Your task to perform on an android device: add a contact in the contacts app Image 0: 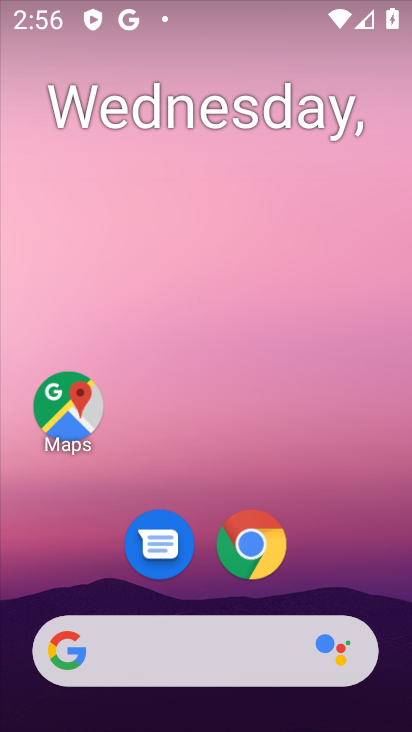
Step 0: drag from (98, 589) to (175, 161)
Your task to perform on an android device: add a contact in the contacts app Image 1: 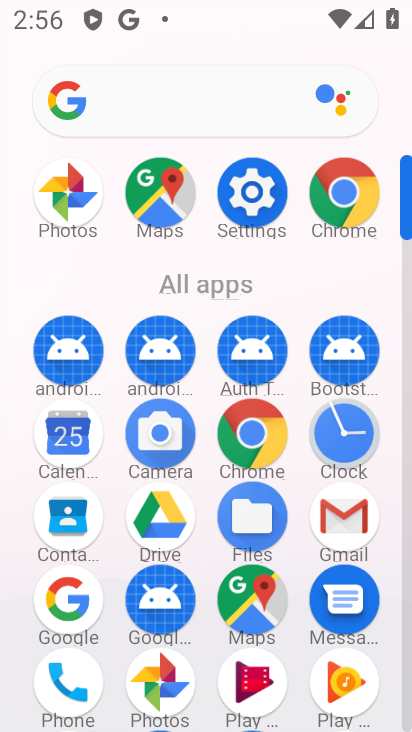
Step 1: click (60, 528)
Your task to perform on an android device: add a contact in the contacts app Image 2: 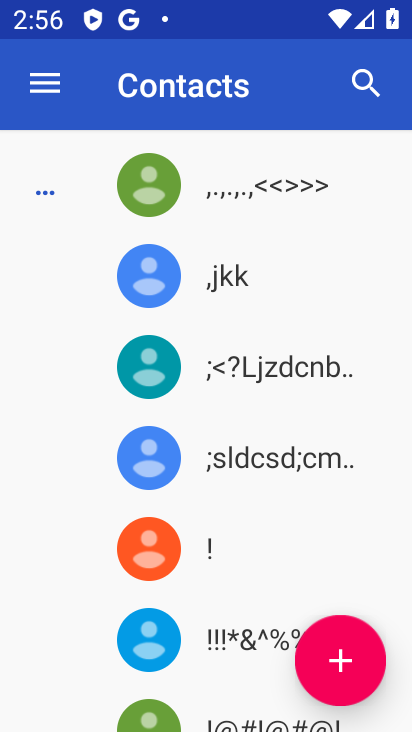
Step 2: click (349, 675)
Your task to perform on an android device: add a contact in the contacts app Image 3: 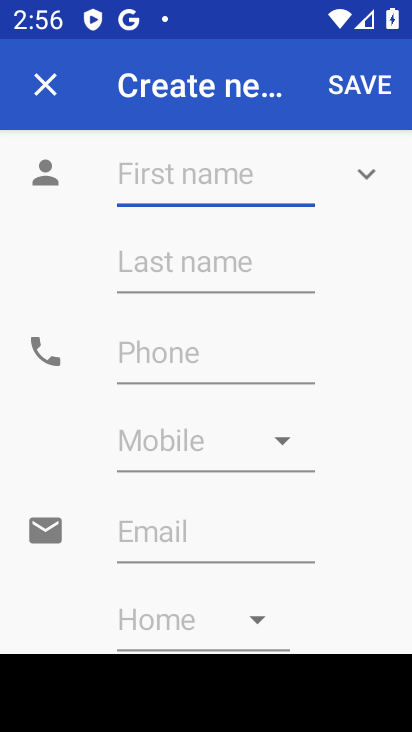
Step 3: type "ghyhyh"
Your task to perform on an android device: add a contact in the contacts app Image 4: 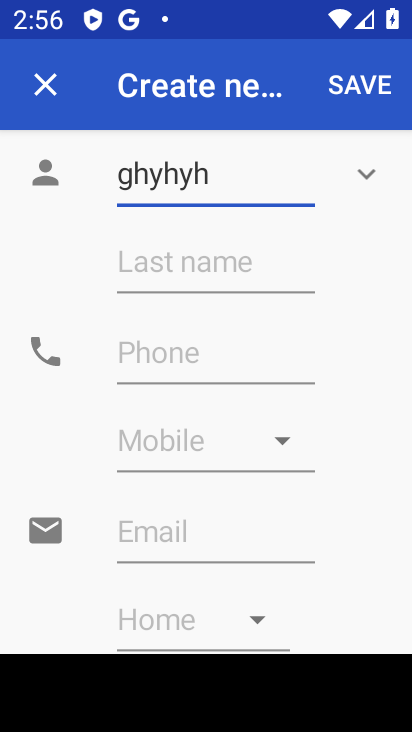
Step 4: click (131, 368)
Your task to perform on an android device: add a contact in the contacts app Image 5: 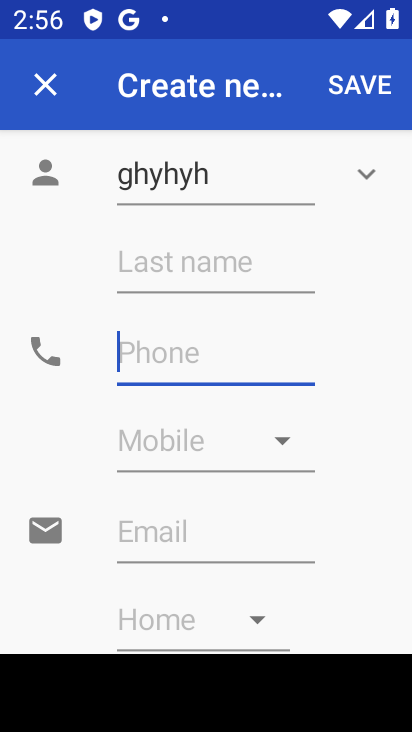
Step 5: type "6767698"
Your task to perform on an android device: add a contact in the contacts app Image 6: 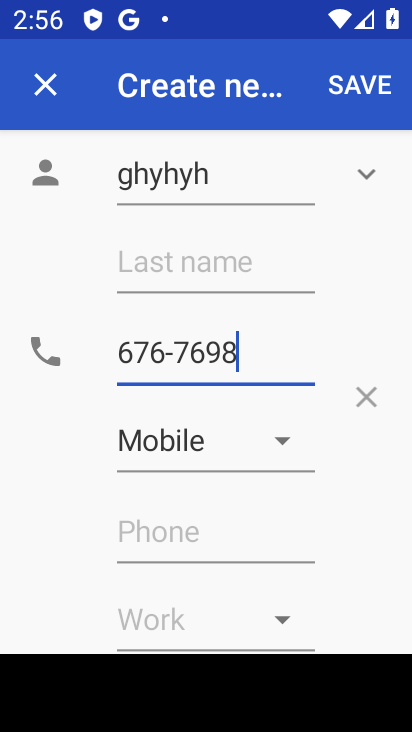
Step 6: type "8"
Your task to perform on an android device: add a contact in the contacts app Image 7: 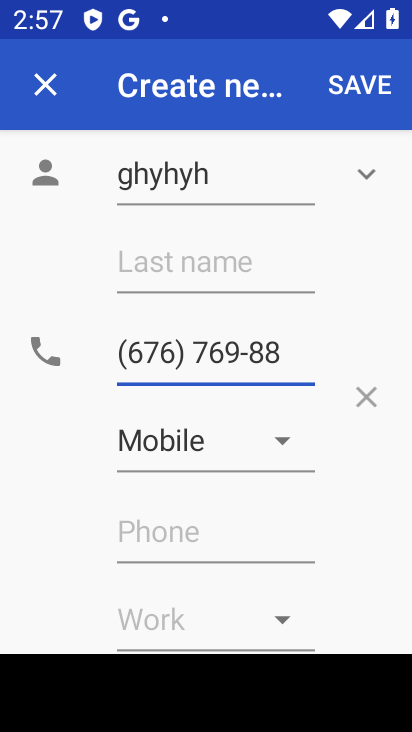
Step 7: type "88"
Your task to perform on an android device: add a contact in the contacts app Image 8: 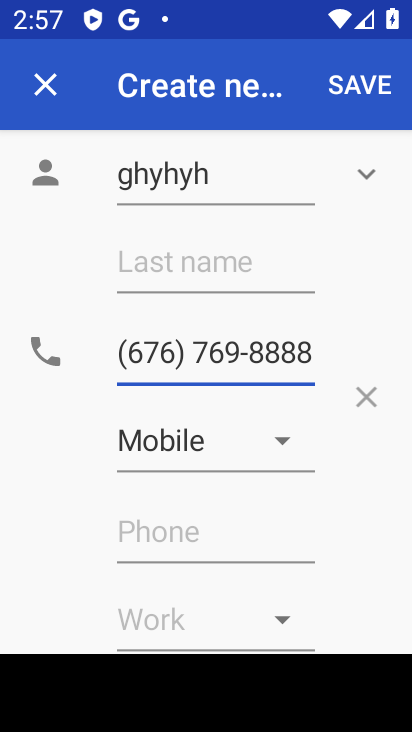
Step 8: click (370, 84)
Your task to perform on an android device: add a contact in the contacts app Image 9: 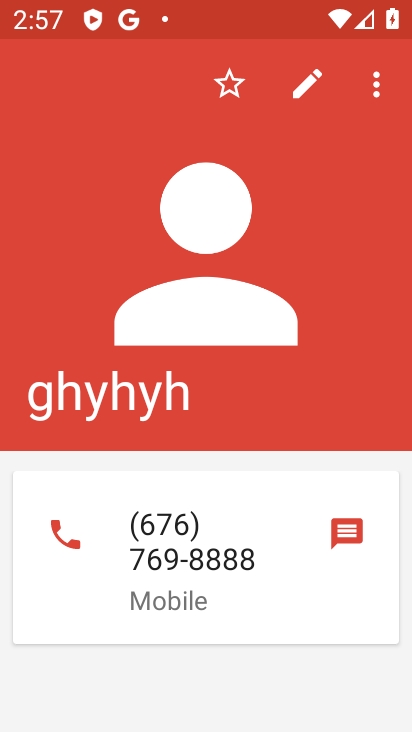
Step 9: task complete